Your task to perform on an android device: Open privacy settings Image 0: 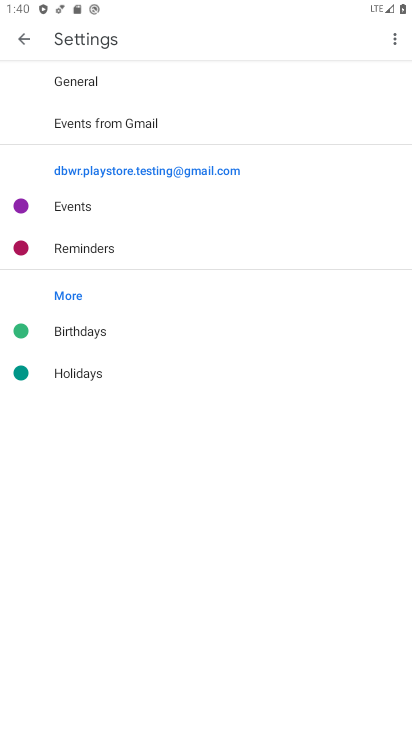
Step 0: press home button
Your task to perform on an android device: Open privacy settings Image 1: 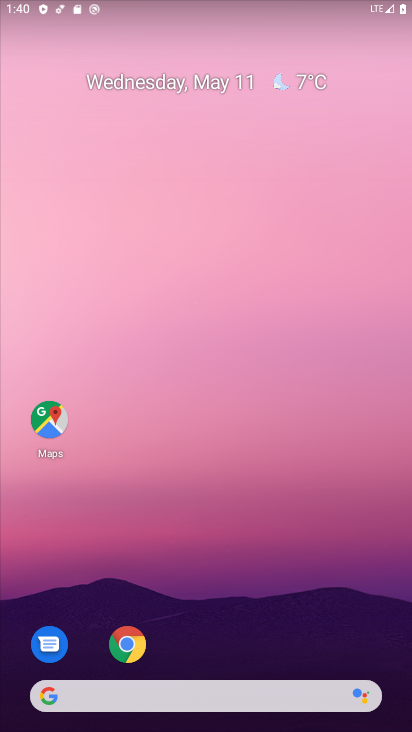
Step 1: drag from (235, 635) to (270, 313)
Your task to perform on an android device: Open privacy settings Image 2: 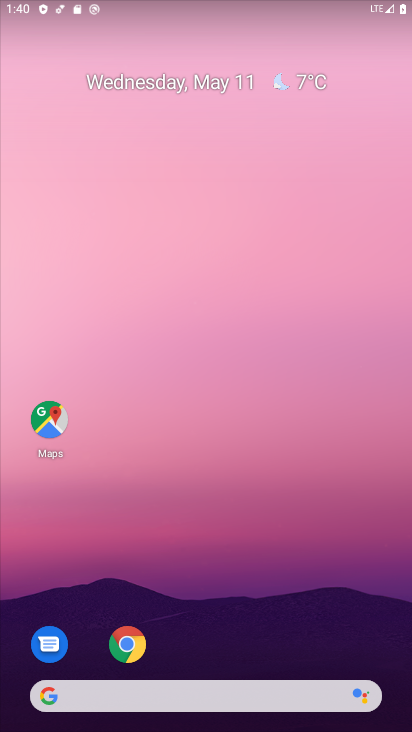
Step 2: click (354, 241)
Your task to perform on an android device: Open privacy settings Image 3: 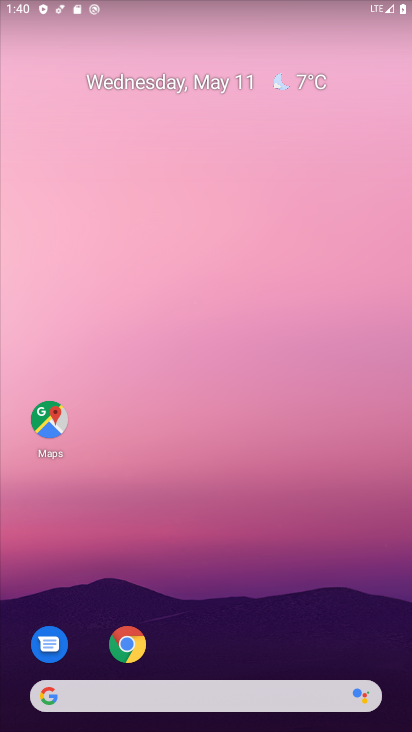
Step 3: drag from (296, 128) to (337, 24)
Your task to perform on an android device: Open privacy settings Image 4: 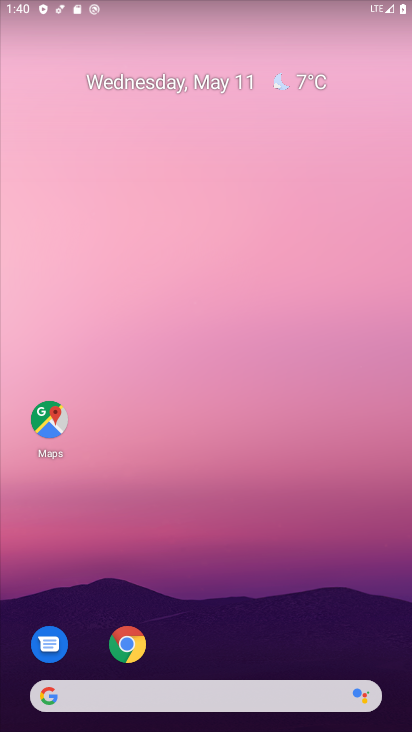
Step 4: click (253, 219)
Your task to perform on an android device: Open privacy settings Image 5: 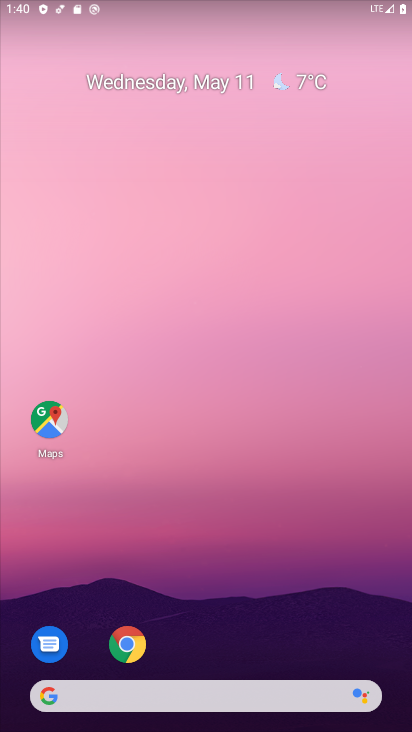
Step 5: drag from (186, 650) to (332, 214)
Your task to perform on an android device: Open privacy settings Image 6: 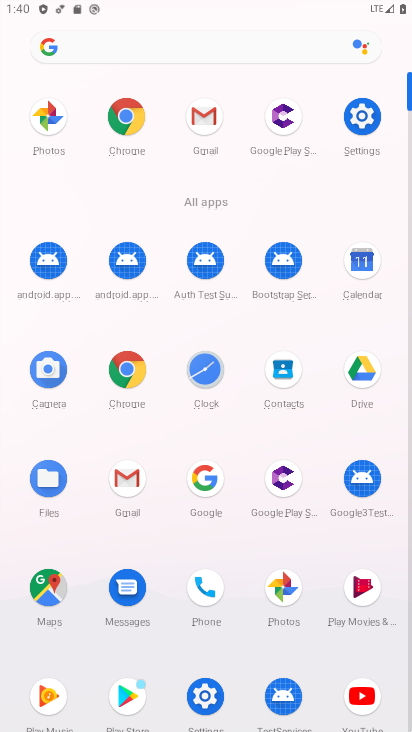
Step 6: click (361, 122)
Your task to perform on an android device: Open privacy settings Image 7: 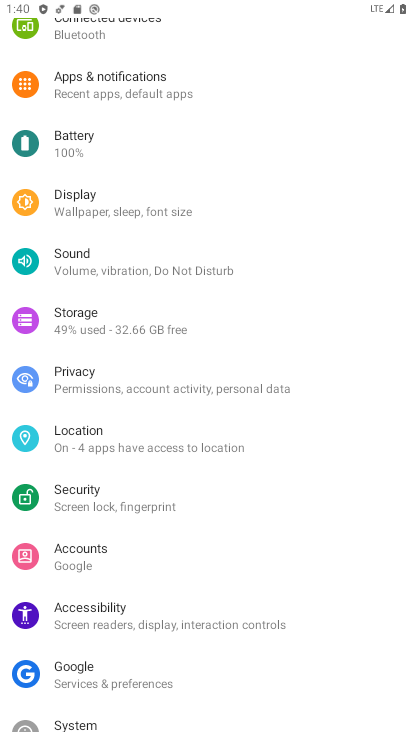
Step 7: click (132, 371)
Your task to perform on an android device: Open privacy settings Image 8: 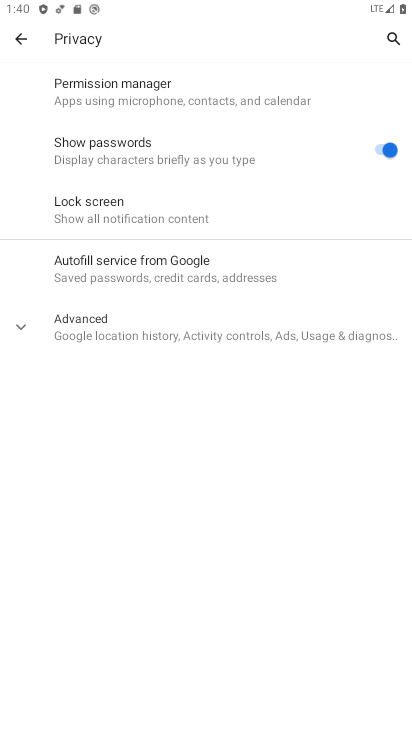
Step 8: task complete